Your task to perform on an android device: turn on data saver in the chrome app Image 0: 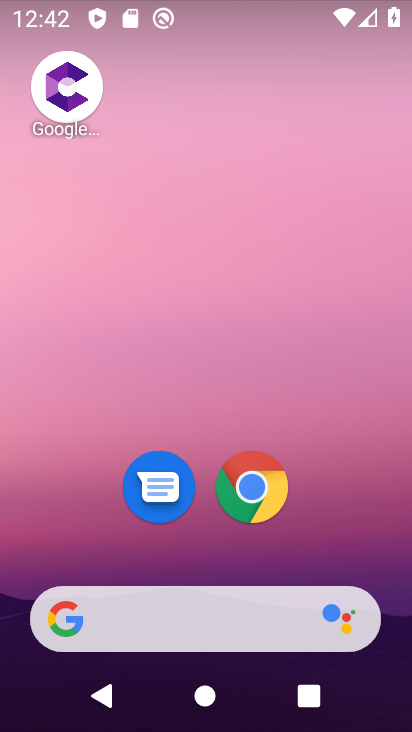
Step 0: click (247, 486)
Your task to perform on an android device: turn on data saver in the chrome app Image 1: 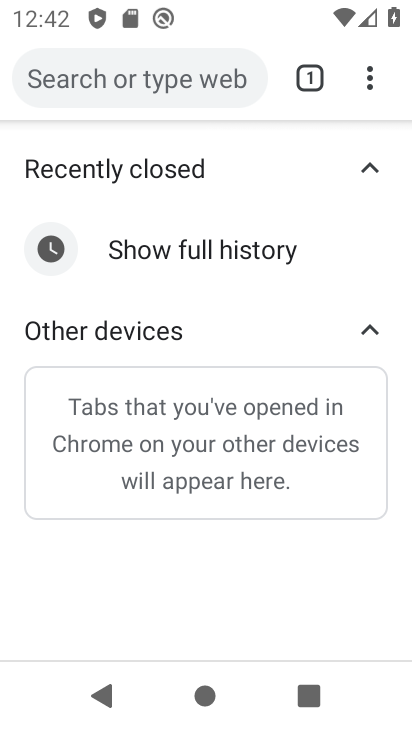
Step 1: click (376, 72)
Your task to perform on an android device: turn on data saver in the chrome app Image 2: 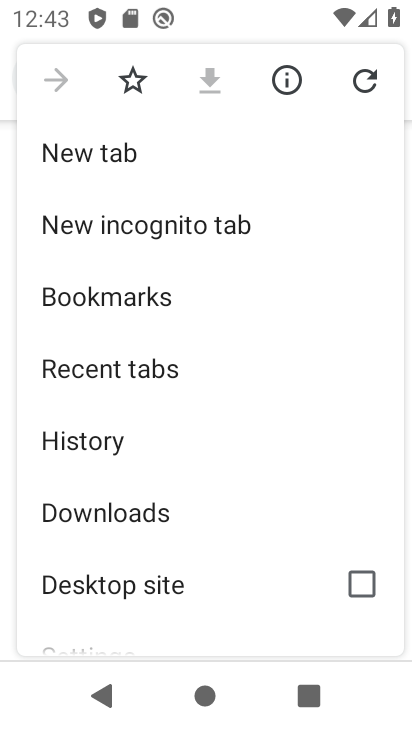
Step 2: drag from (62, 594) to (171, 220)
Your task to perform on an android device: turn on data saver in the chrome app Image 3: 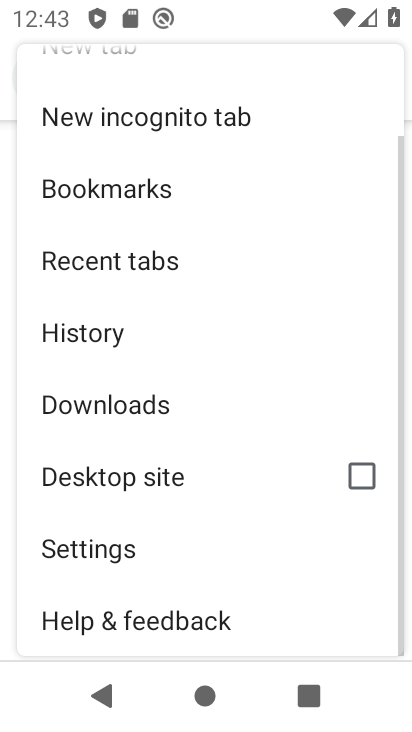
Step 3: click (71, 545)
Your task to perform on an android device: turn on data saver in the chrome app Image 4: 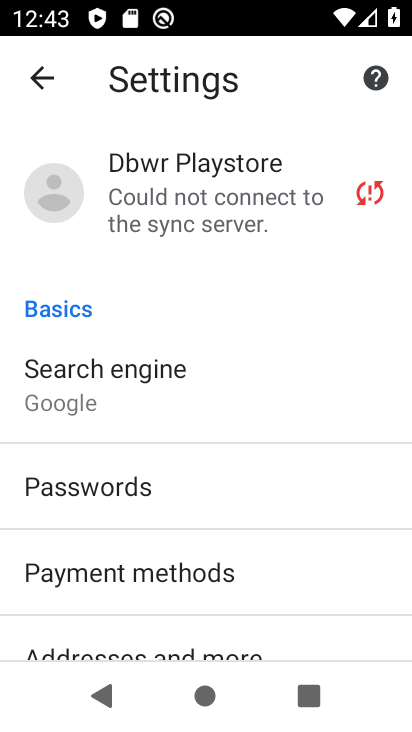
Step 4: drag from (71, 545) to (150, 251)
Your task to perform on an android device: turn on data saver in the chrome app Image 5: 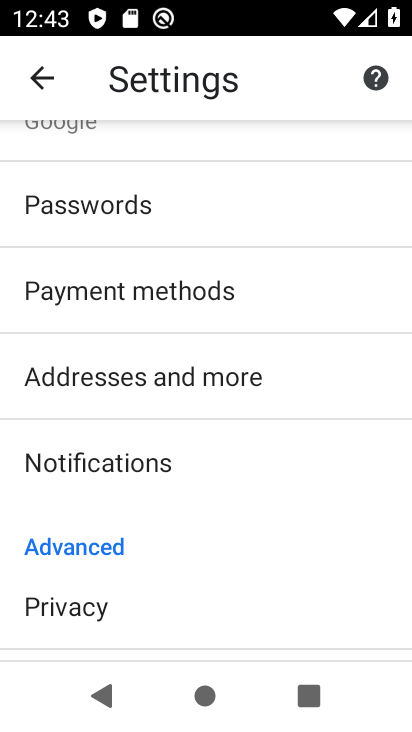
Step 5: drag from (100, 643) to (180, 267)
Your task to perform on an android device: turn on data saver in the chrome app Image 6: 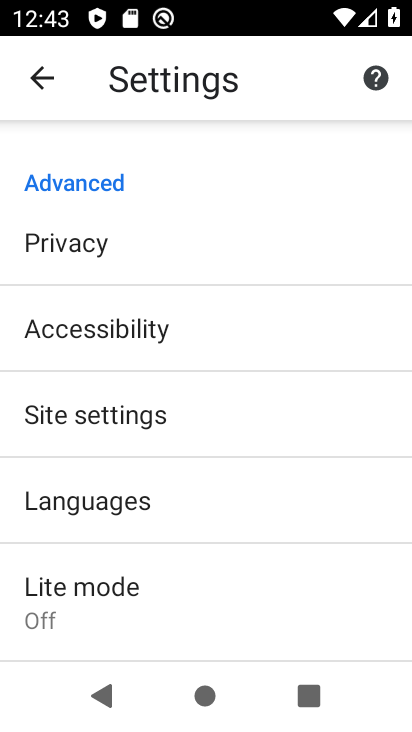
Step 6: click (77, 586)
Your task to perform on an android device: turn on data saver in the chrome app Image 7: 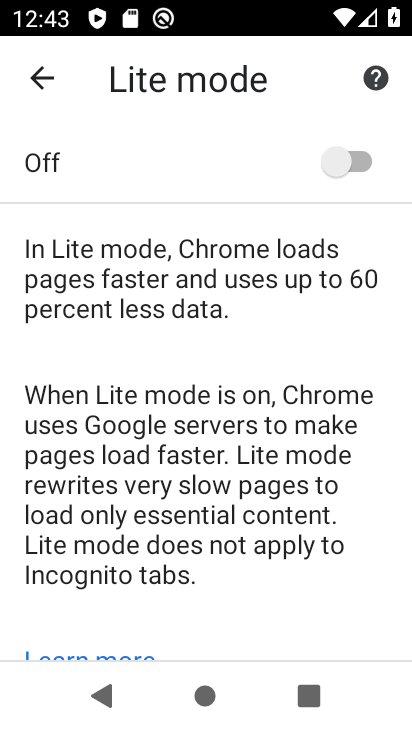
Step 7: click (356, 166)
Your task to perform on an android device: turn on data saver in the chrome app Image 8: 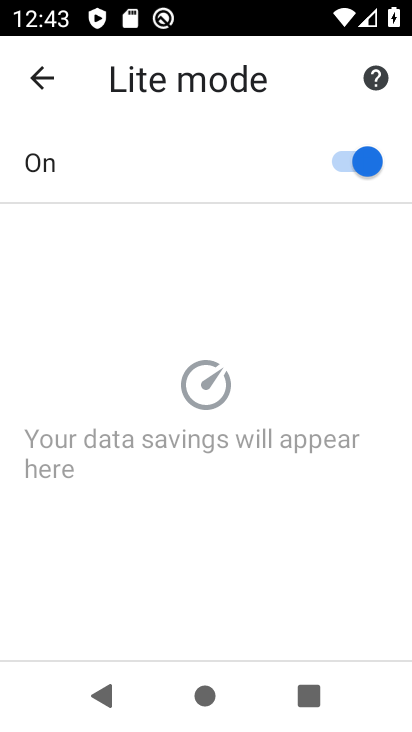
Step 8: task complete